Your task to perform on an android device: Open Android settings Image 0: 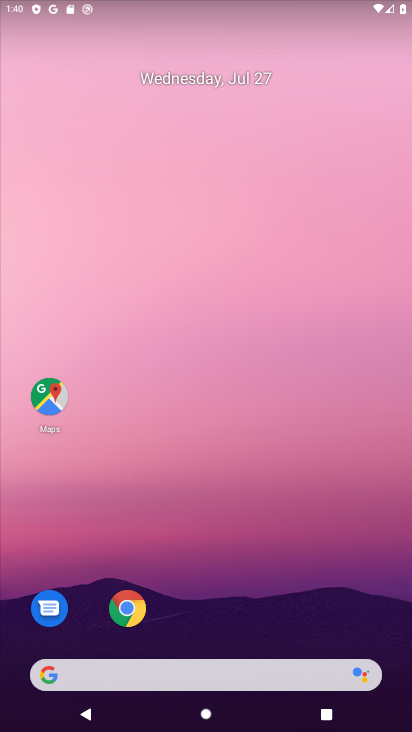
Step 0: drag from (23, 702) to (236, 374)
Your task to perform on an android device: Open Android settings Image 1: 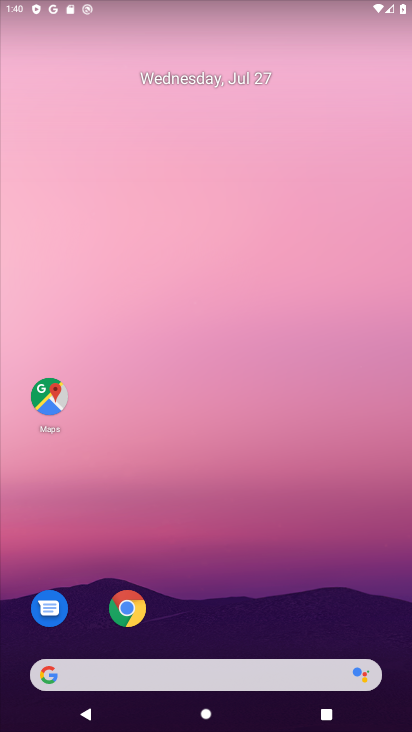
Step 1: drag from (118, 534) to (216, 192)
Your task to perform on an android device: Open Android settings Image 2: 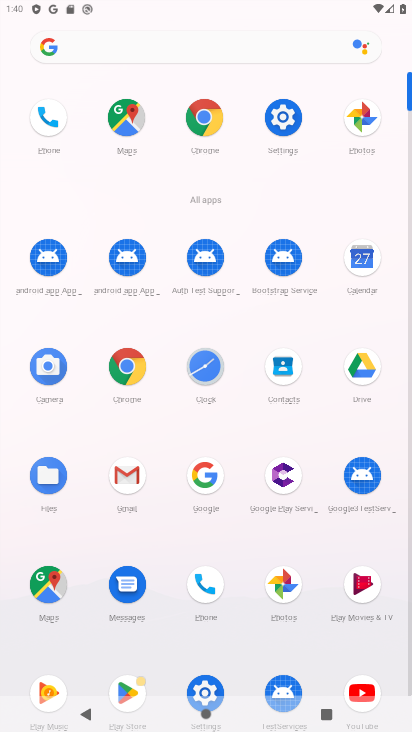
Step 2: click (204, 684)
Your task to perform on an android device: Open Android settings Image 3: 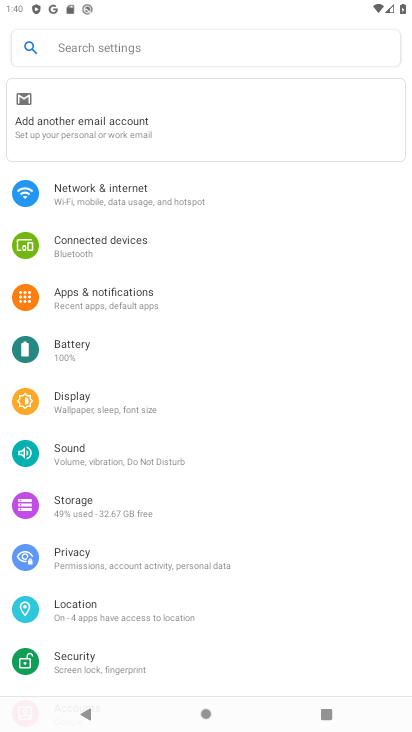
Step 3: drag from (306, 664) to (313, 210)
Your task to perform on an android device: Open Android settings Image 4: 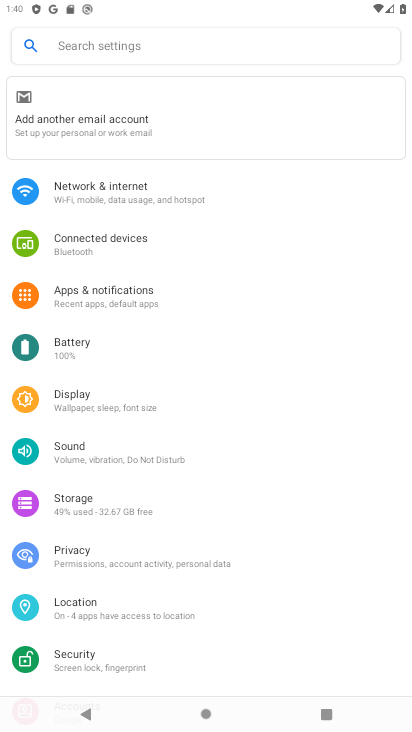
Step 4: drag from (285, 609) to (250, 62)
Your task to perform on an android device: Open Android settings Image 5: 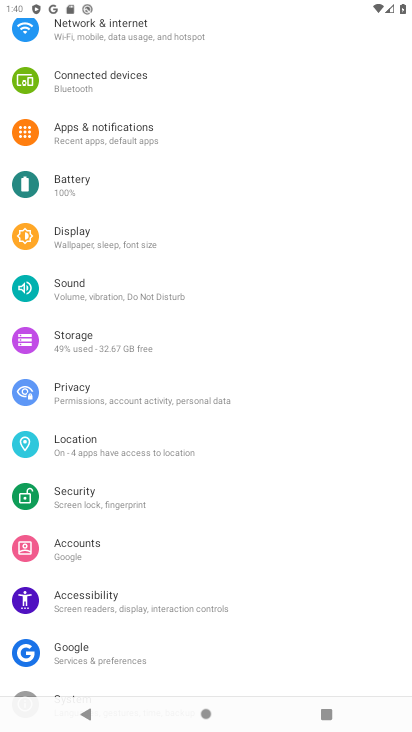
Step 5: drag from (227, 594) to (247, 375)
Your task to perform on an android device: Open Android settings Image 6: 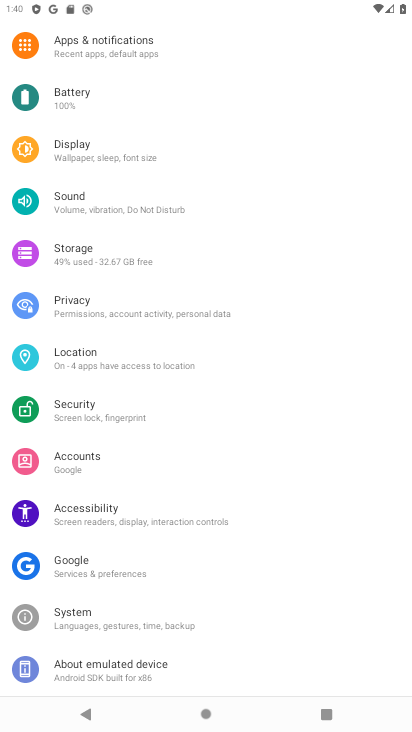
Step 6: click (79, 670)
Your task to perform on an android device: Open Android settings Image 7: 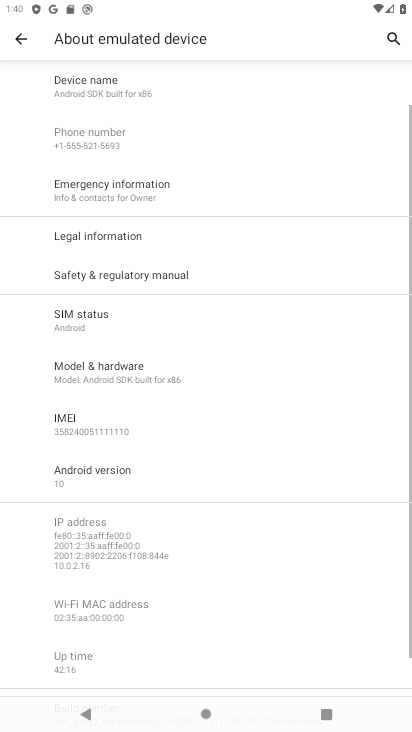
Step 7: click (105, 484)
Your task to perform on an android device: Open Android settings Image 8: 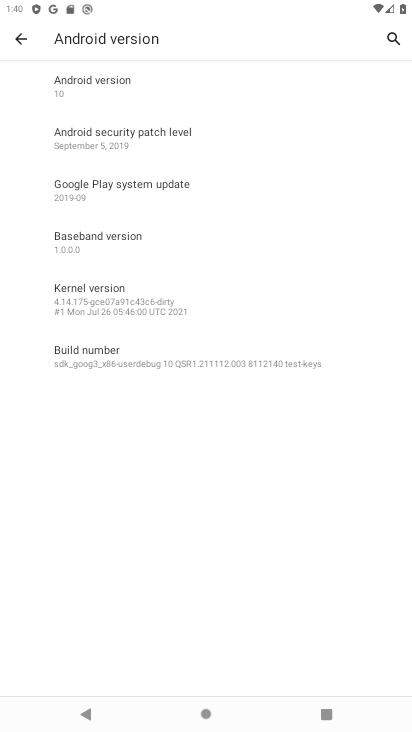
Step 8: task complete